Your task to perform on an android device: remove spam from my inbox in the gmail app Image 0: 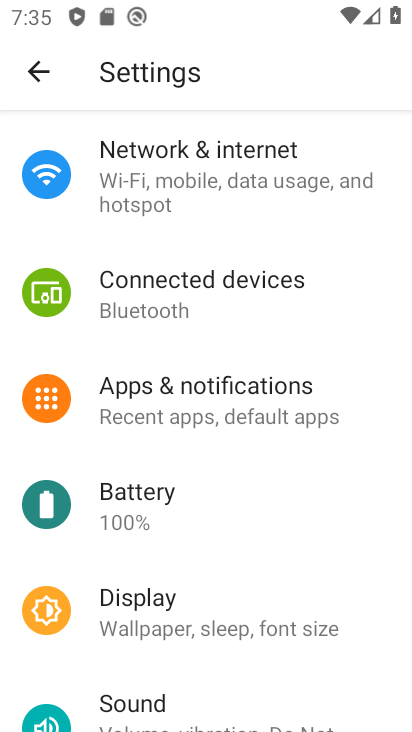
Step 0: press home button
Your task to perform on an android device: remove spam from my inbox in the gmail app Image 1: 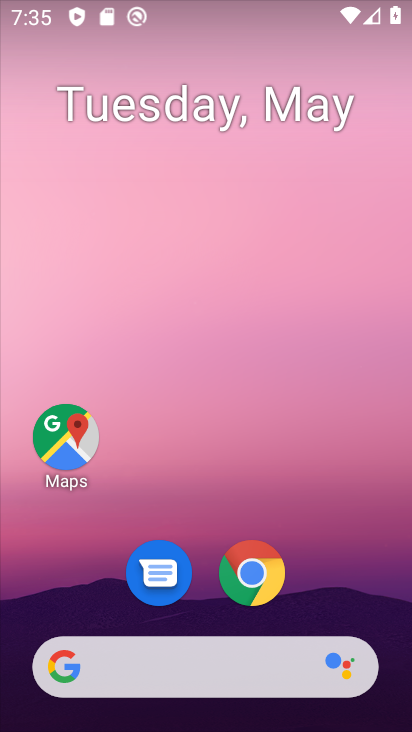
Step 1: drag from (111, 582) to (142, 210)
Your task to perform on an android device: remove spam from my inbox in the gmail app Image 2: 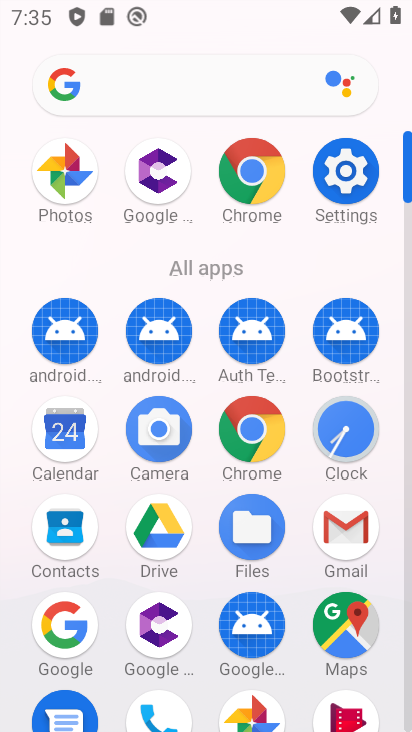
Step 2: click (350, 530)
Your task to perform on an android device: remove spam from my inbox in the gmail app Image 3: 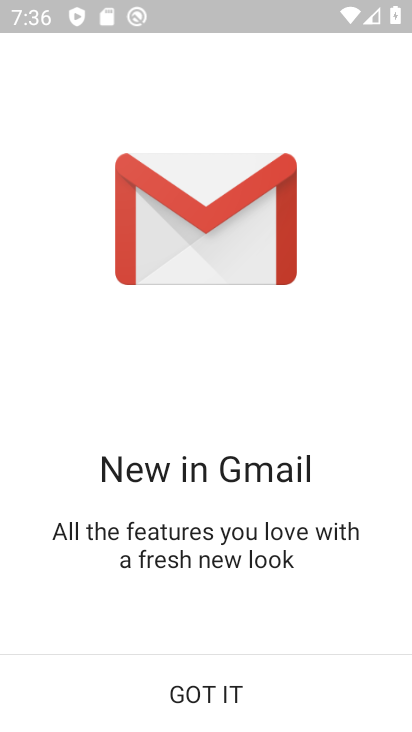
Step 3: click (185, 693)
Your task to perform on an android device: remove spam from my inbox in the gmail app Image 4: 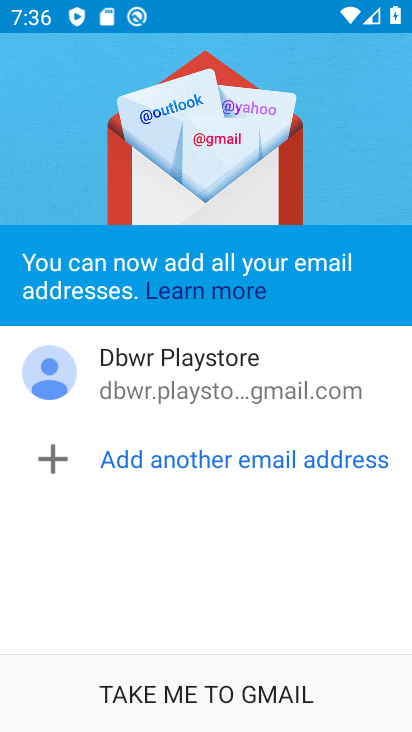
Step 4: click (191, 681)
Your task to perform on an android device: remove spam from my inbox in the gmail app Image 5: 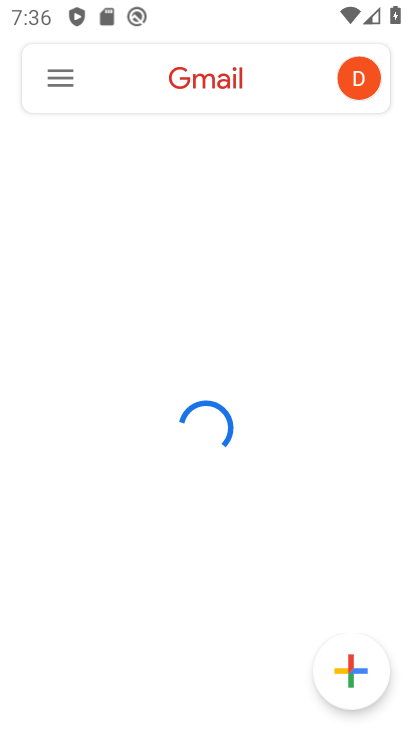
Step 5: click (67, 82)
Your task to perform on an android device: remove spam from my inbox in the gmail app Image 6: 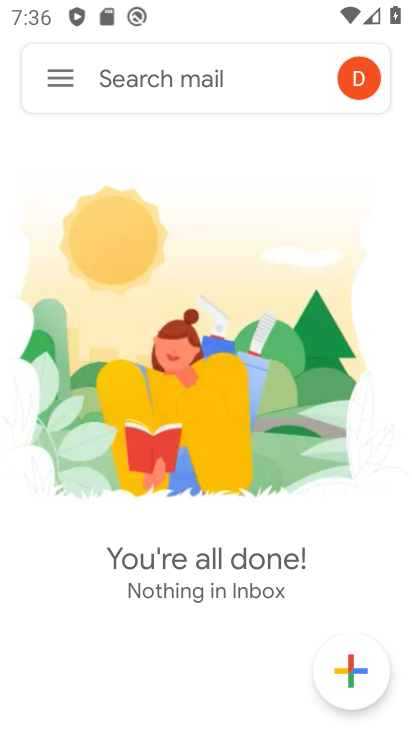
Step 6: click (58, 74)
Your task to perform on an android device: remove spam from my inbox in the gmail app Image 7: 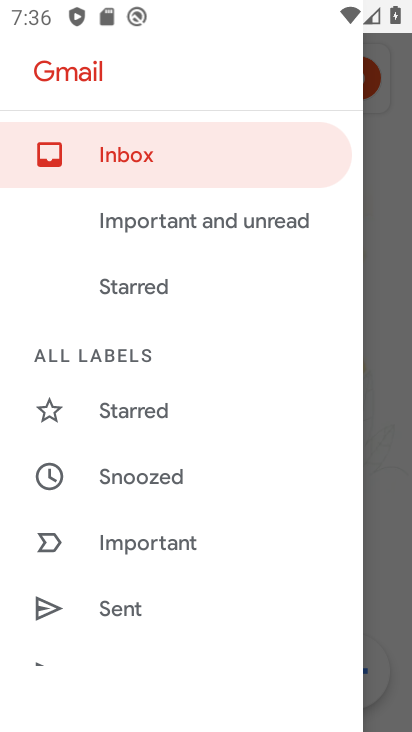
Step 7: drag from (181, 598) to (182, 256)
Your task to perform on an android device: remove spam from my inbox in the gmail app Image 8: 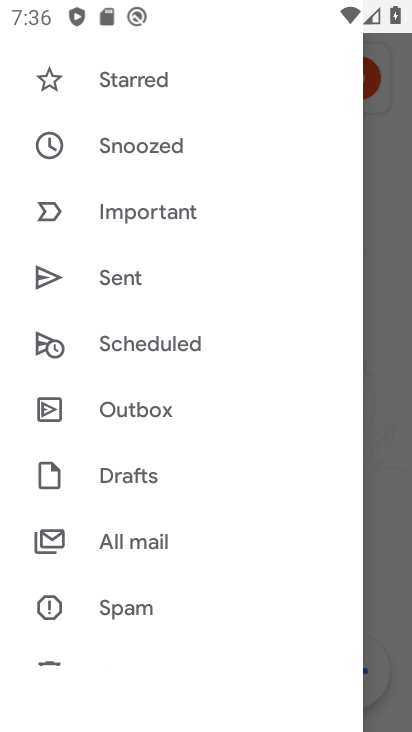
Step 8: click (130, 604)
Your task to perform on an android device: remove spam from my inbox in the gmail app Image 9: 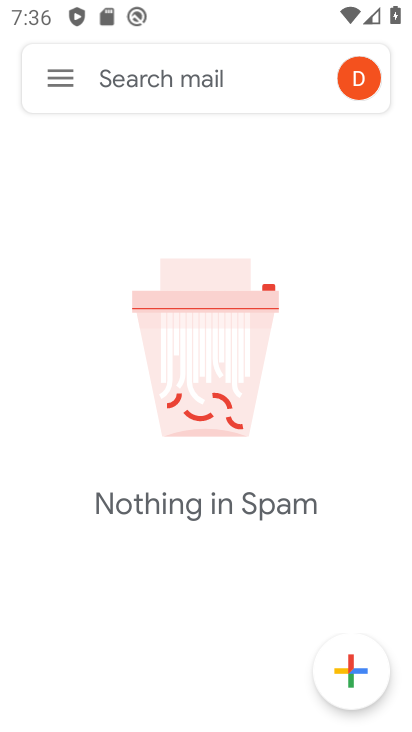
Step 9: task complete